Your task to perform on an android device: open app "LiveIn - Share Your Moment" (install if not already installed) and enter user name: "certifies@gmail.com" and password: "compartmented" Image 0: 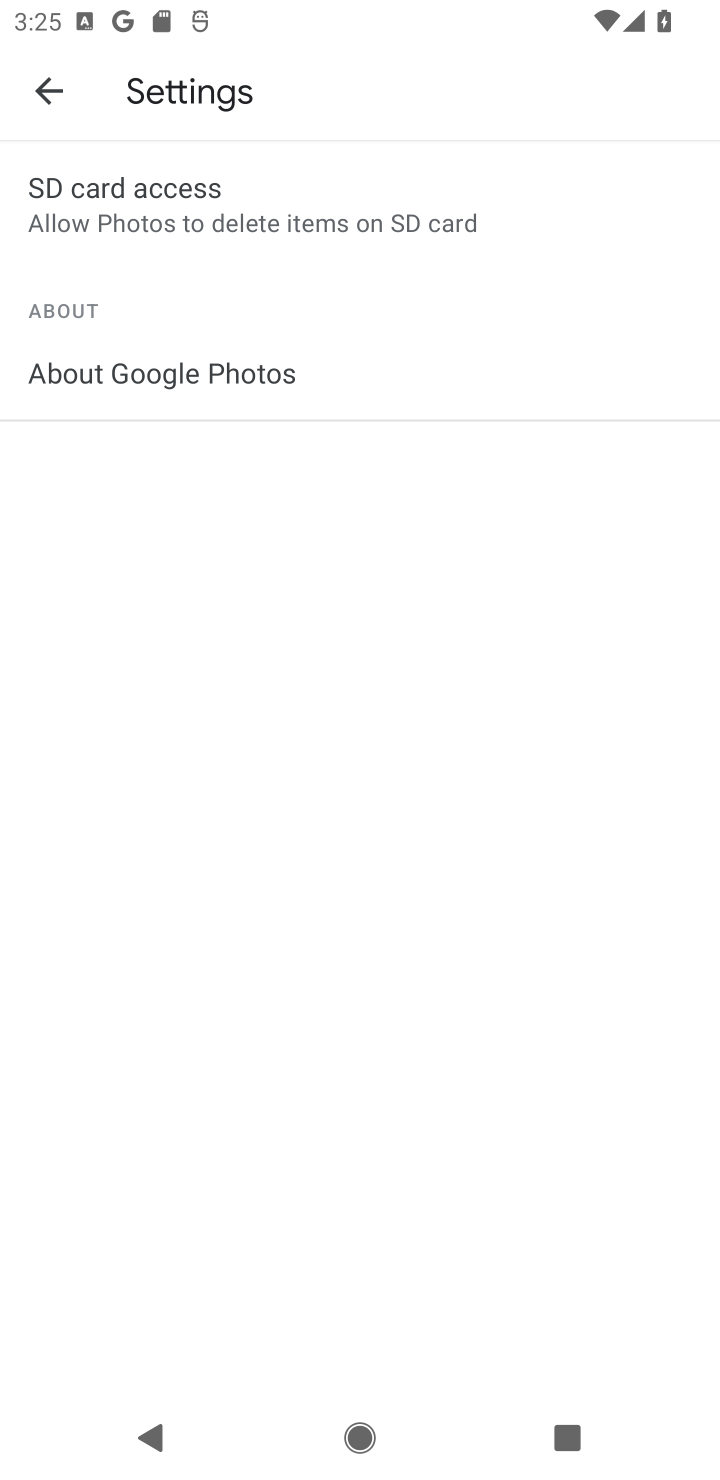
Step 0: press home button
Your task to perform on an android device: open app "LiveIn - Share Your Moment" (install if not already installed) and enter user name: "certifies@gmail.com" and password: "compartmented" Image 1: 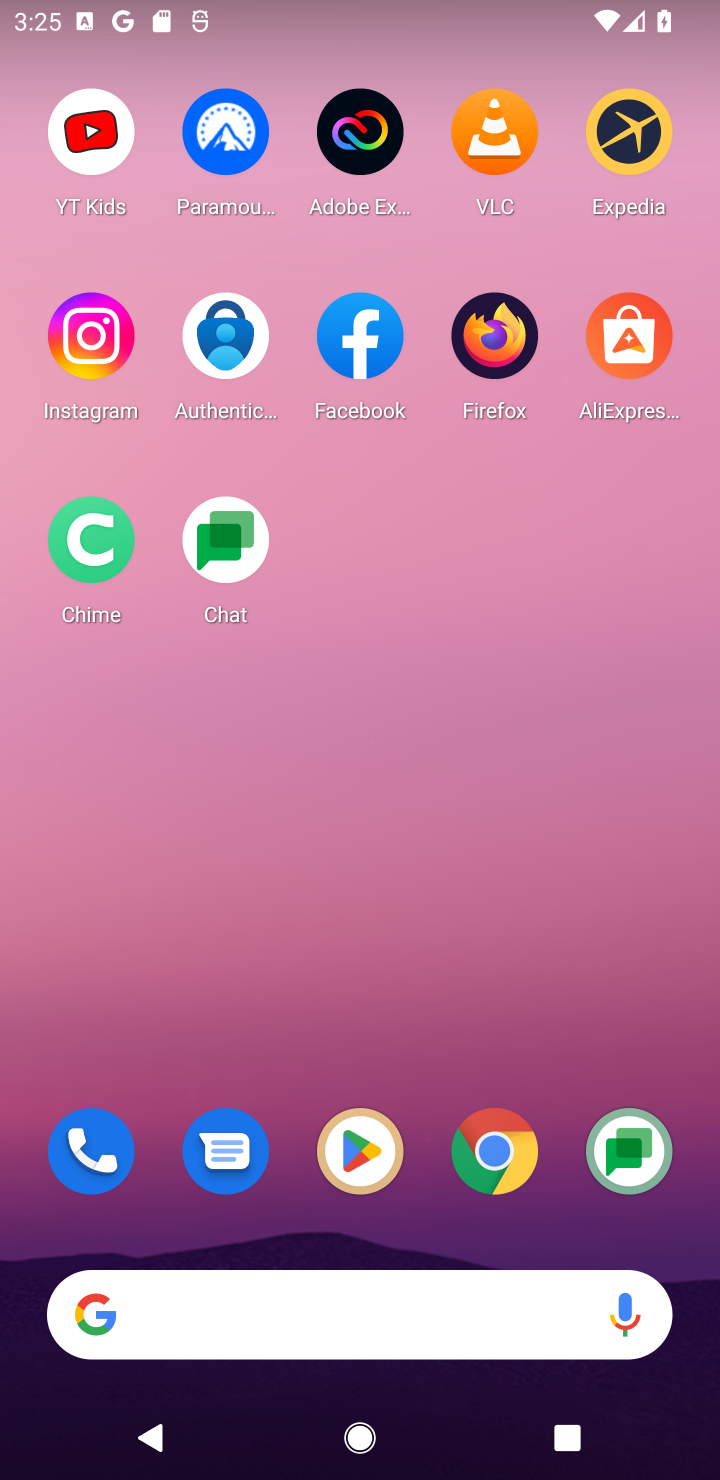
Step 1: press home button
Your task to perform on an android device: open app "LiveIn - Share Your Moment" (install if not already installed) and enter user name: "certifies@gmail.com" and password: "compartmented" Image 2: 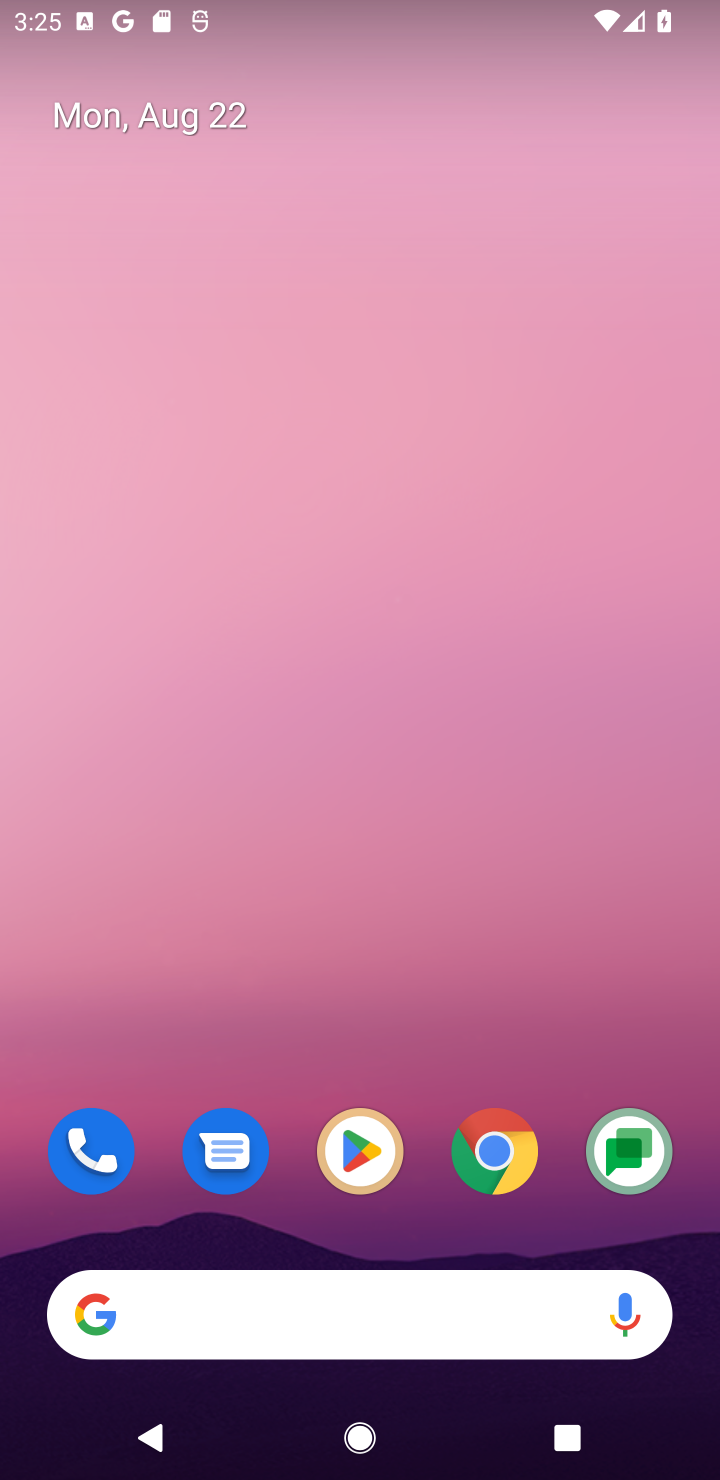
Step 2: click (361, 1153)
Your task to perform on an android device: open app "LiveIn - Share Your Moment" (install if not already installed) and enter user name: "certifies@gmail.com" and password: "compartmented" Image 3: 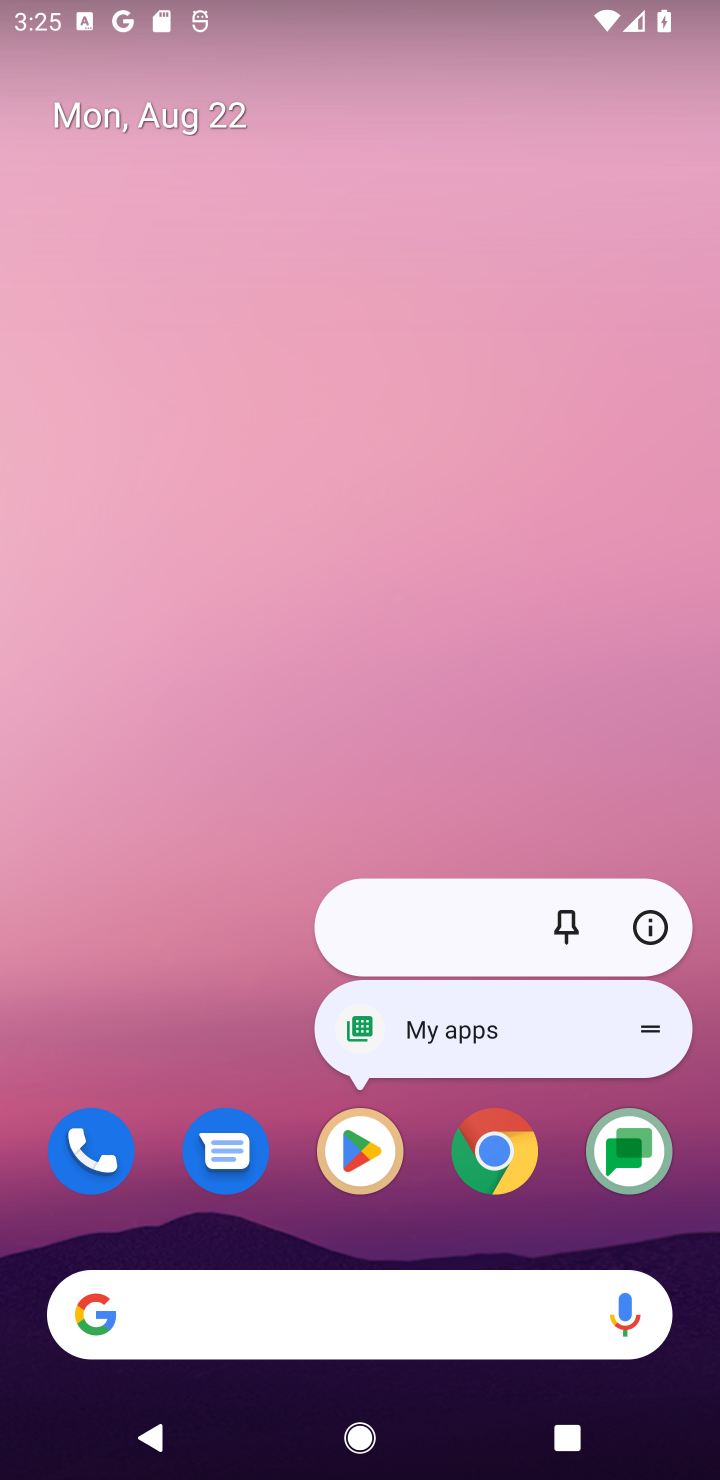
Step 3: click (361, 1153)
Your task to perform on an android device: open app "LiveIn - Share Your Moment" (install if not already installed) and enter user name: "certifies@gmail.com" and password: "compartmented" Image 4: 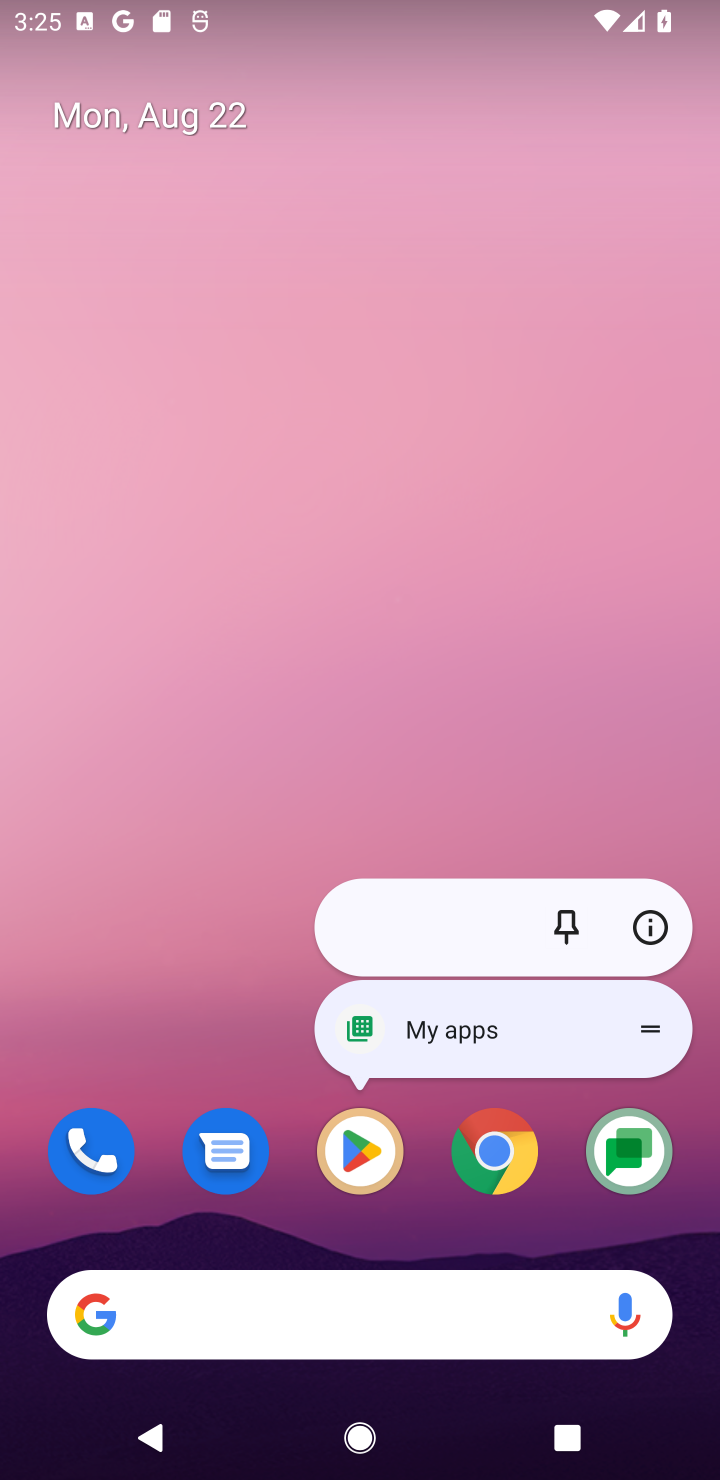
Step 4: click (361, 1151)
Your task to perform on an android device: open app "LiveIn - Share Your Moment" (install if not already installed) and enter user name: "certifies@gmail.com" and password: "compartmented" Image 5: 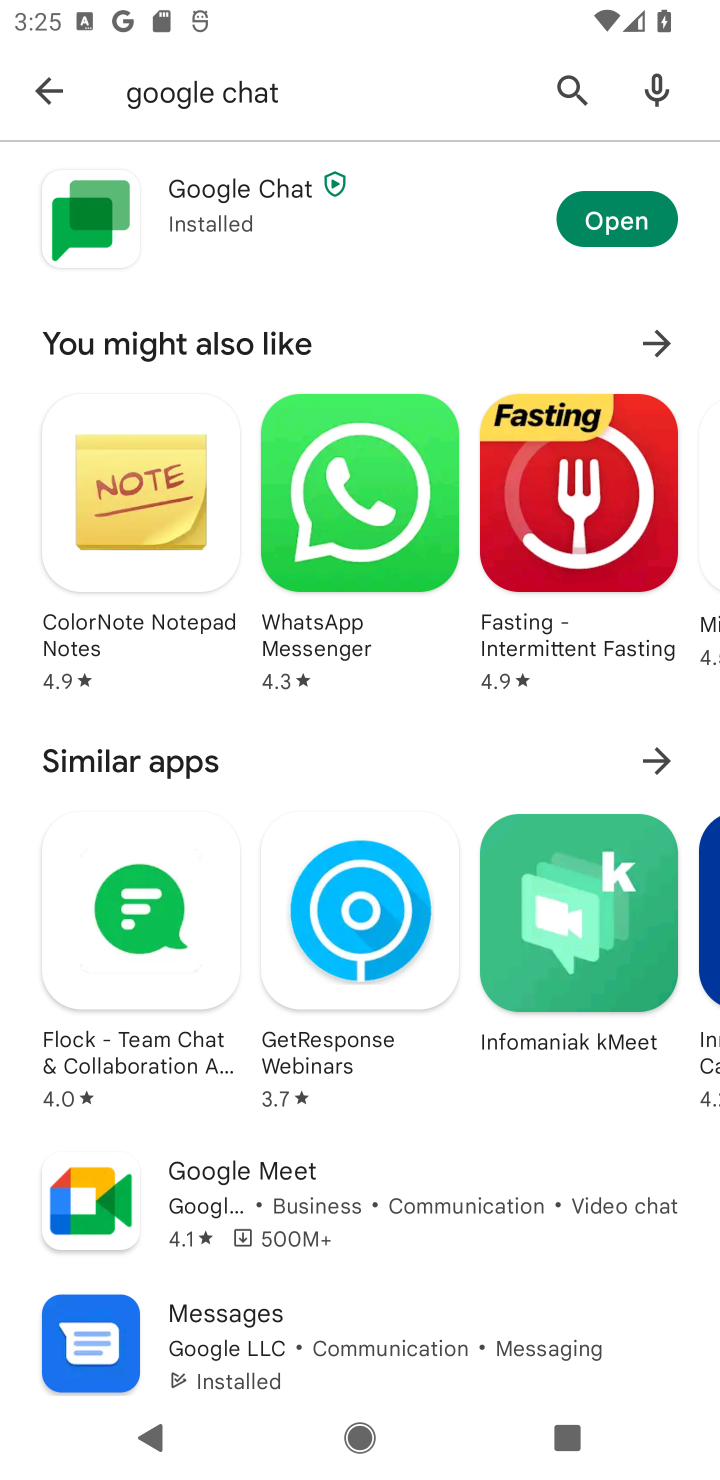
Step 5: click (551, 89)
Your task to perform on an android device: open app "LiveIn - Share Your Moment" (install if not already installed) and enter user name: "certifies@gmail.com" and password: "compartmented" Image 6: 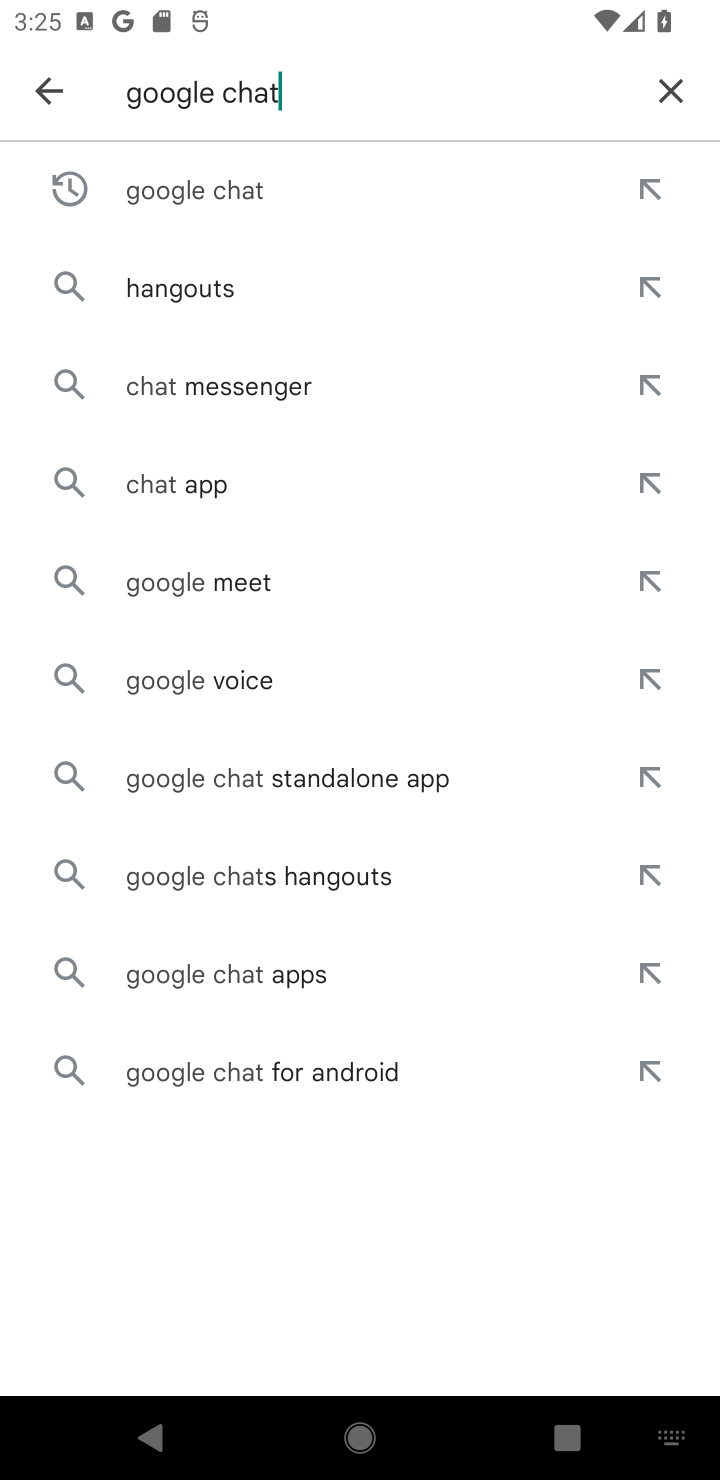
Step 6: click (668, 90)
Your task to perform on an android device: open app "LiveIn - Share Your Moment" (install if not already installed) and enter user name: "certifies@gmail.com" and password: "compartmented" Image 7: 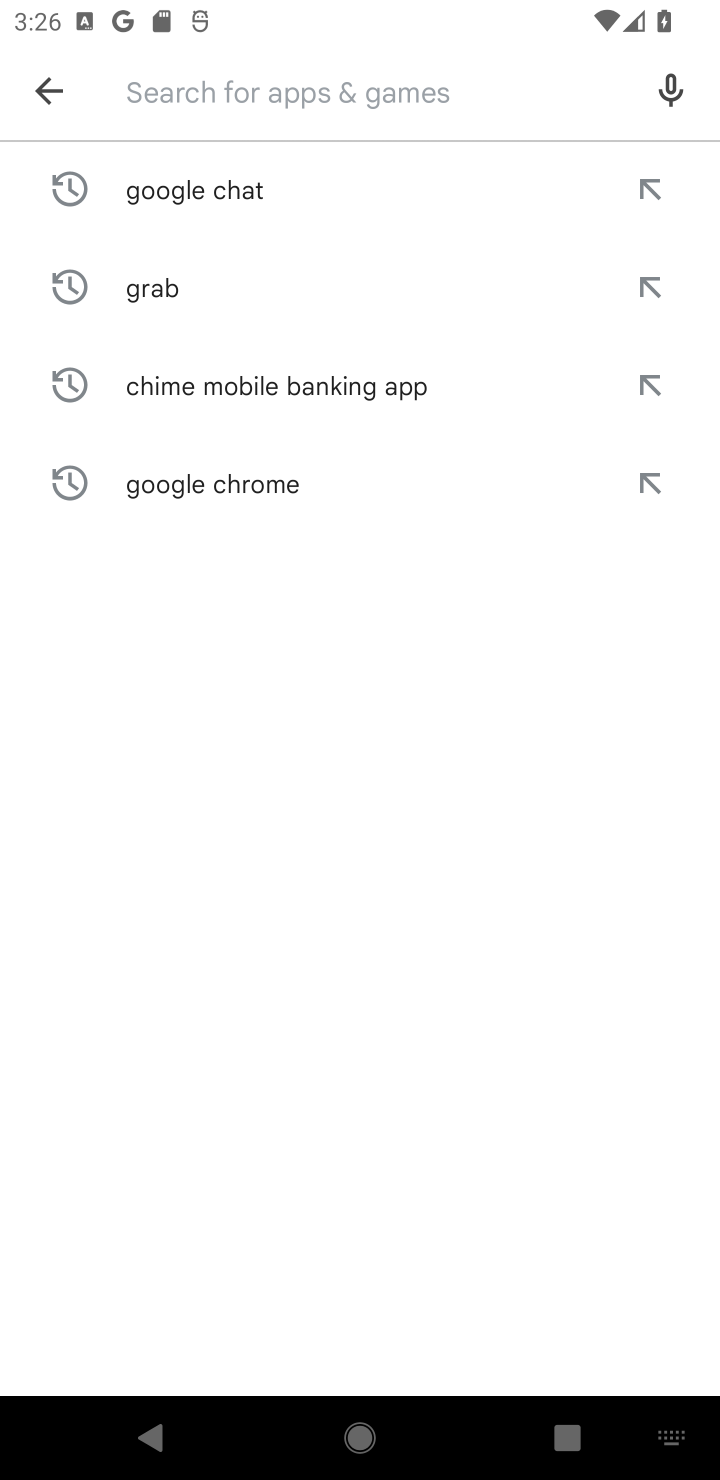
Step 7: type "LiveIn - Share Your Moment"
Your task to perform on an android device: open app "LiveIn - Share Your Moment" (install if not already installed) and enter user name: "certifies@gmail.com" and password: "compartmented" Image 8: 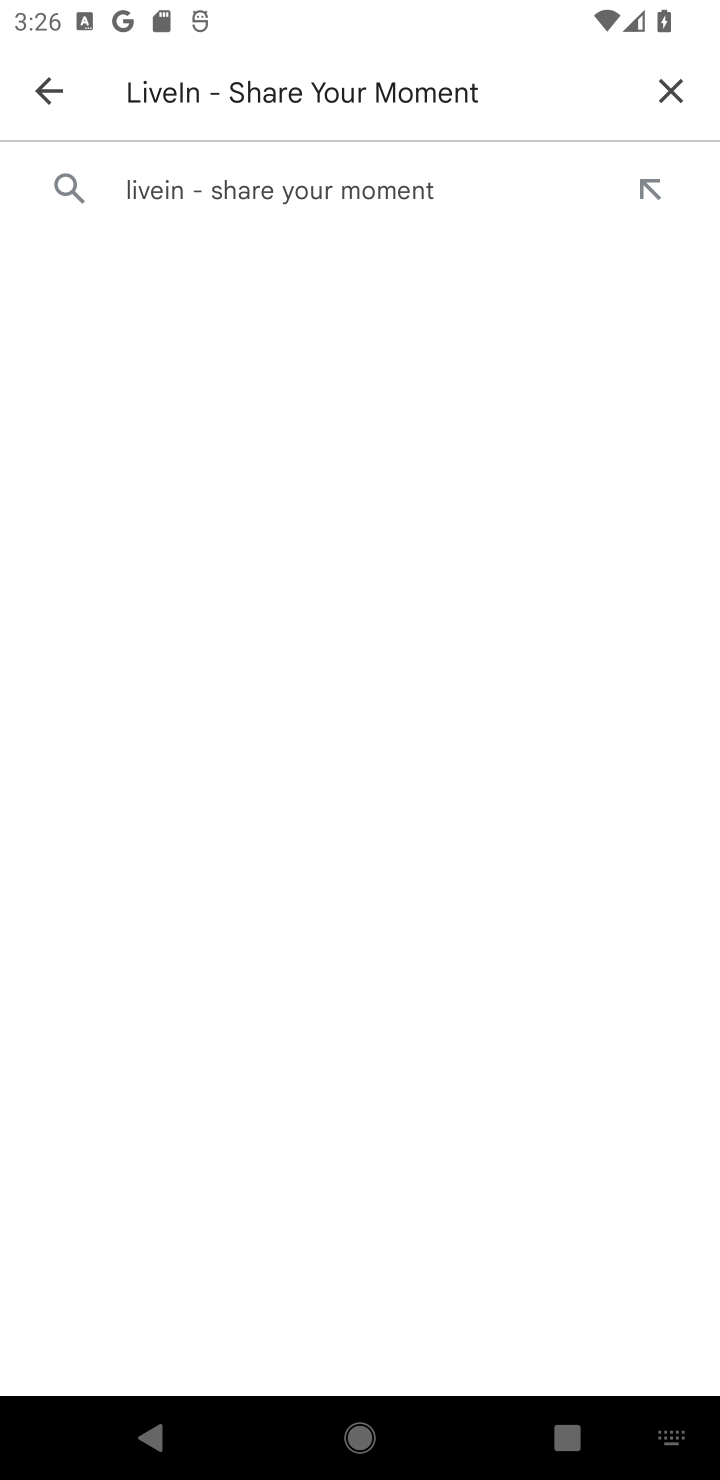
Step 8: click (298, 191)
Your task to perform on an android device: open app "LiveIn - Share Your Moment" (install if not already installed) and enter user name: "certifies@gmail.com" and password: "compartmented" Image 9: 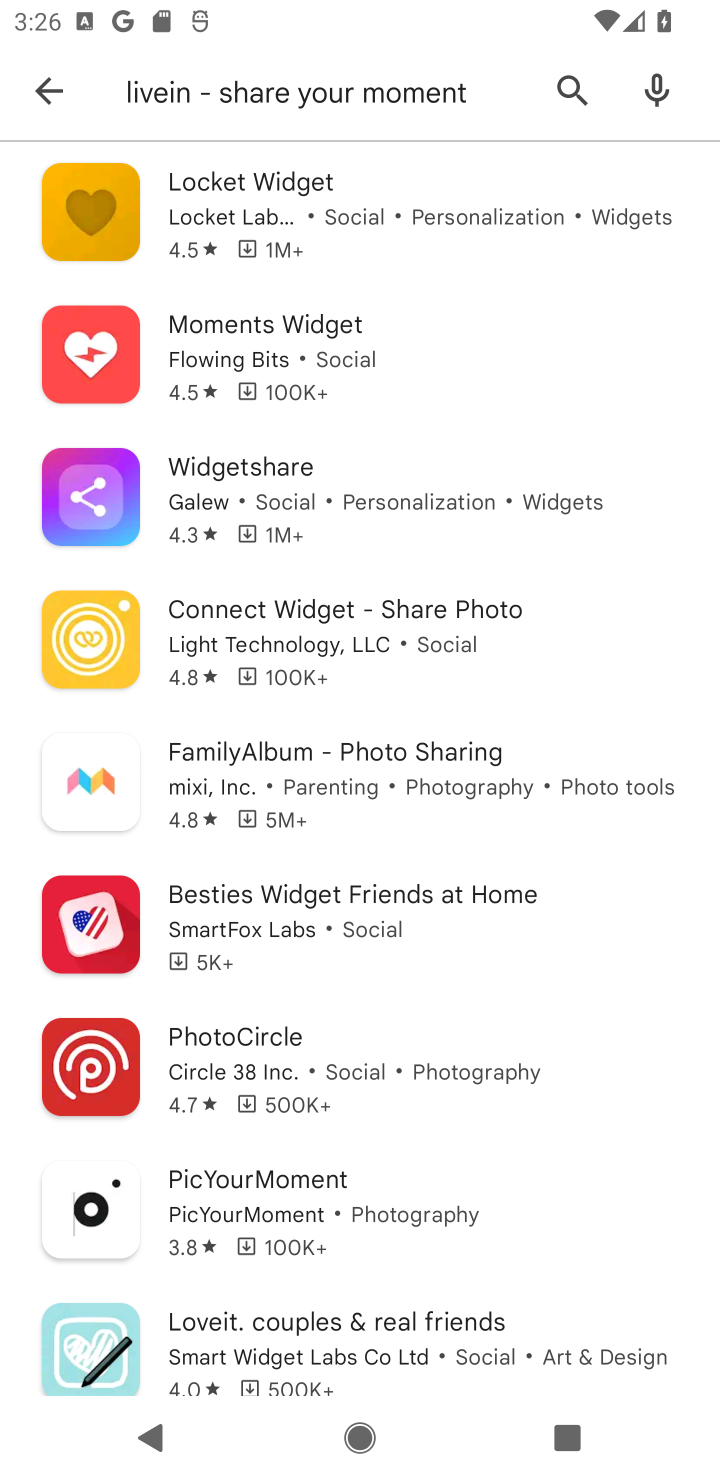
Step 9: task complete